Your task to perform on an android device: What is the news today? Image 0: 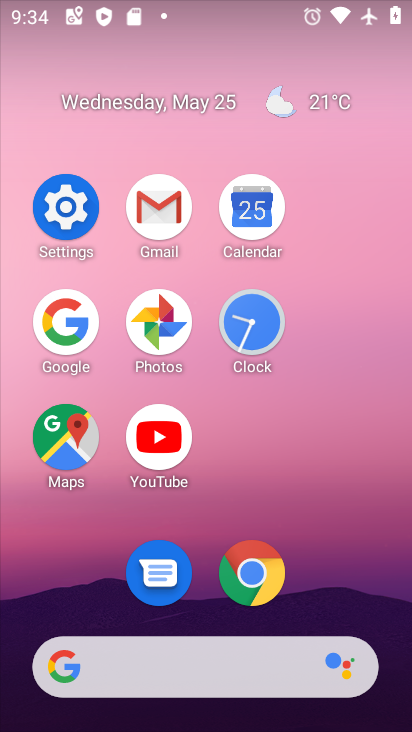
Step 0: click (78, 317)
Your task to perform on an android device: What is the news today? Image 1: 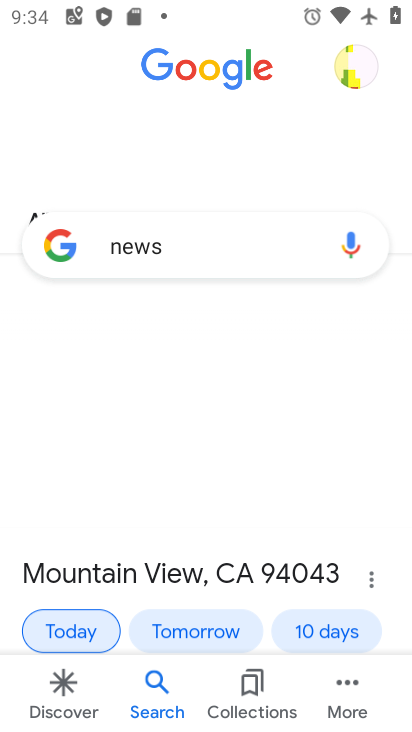
Step 1: click (251, 248)
Your task to perform on an android device: What is the news today? Image 2: 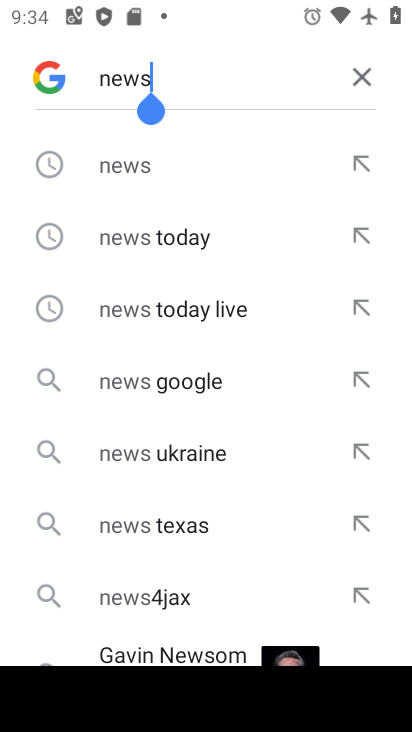
Step 2: click (369, 92)
Your task to perform on an android device: What is the news today? Image 3: 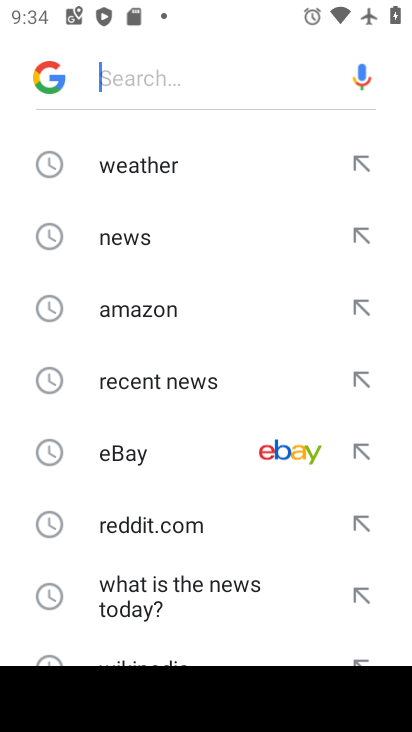
Step 3: click (140, 238)
Your task to perform on an android device: What is the news today? Image 4: 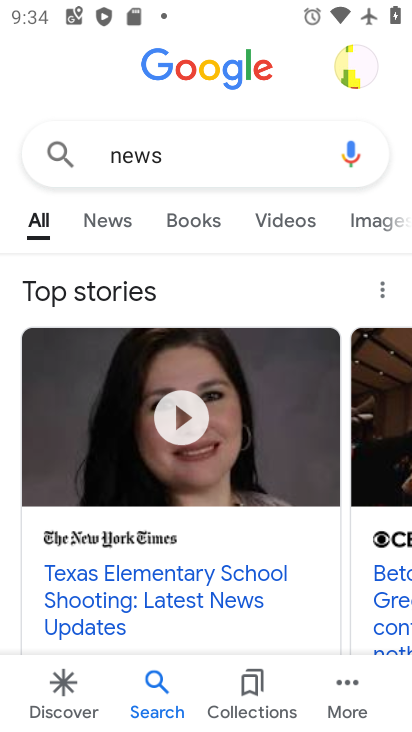
Step 4: task complete